Your task to perform on an android device: snooze an email in the gmail app Image 0: 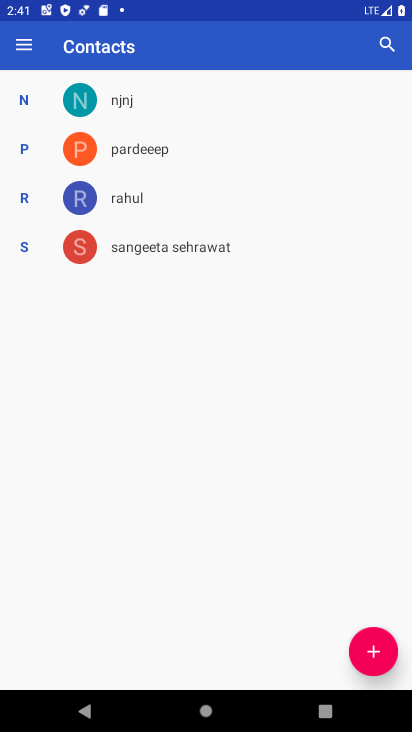
Step 0: press home button
Your task to perform on an android device: snooze an email in the gmail app Image 1: 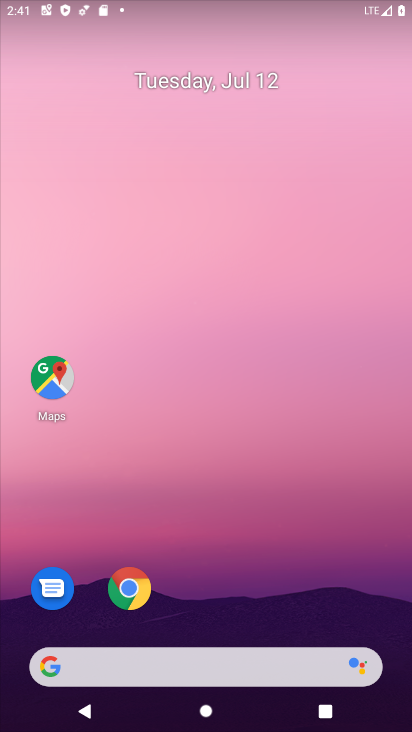
Step 1: drag from (137, 606) to (249, 206)
Your task to perform on an android device: snooze an email in the gmail app Image 2: 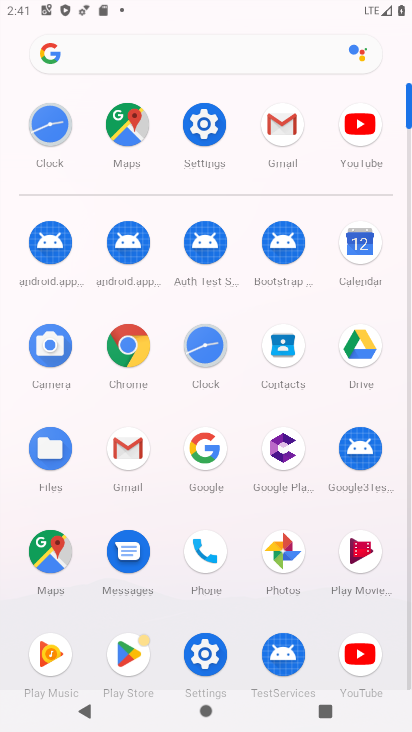
Step 2: click (293, 124)
Your task to perform on an android device: snooze an email in the gmail app Image 3: 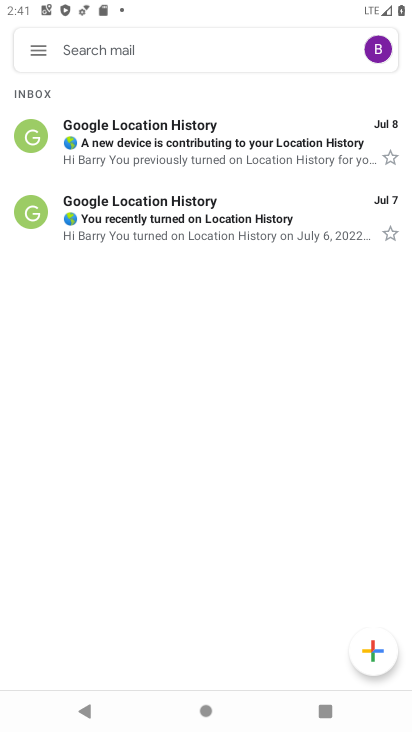
Step 3: click (180, 132)
Your task to perform on an android device: snooze an email in the gmail app Image 4: 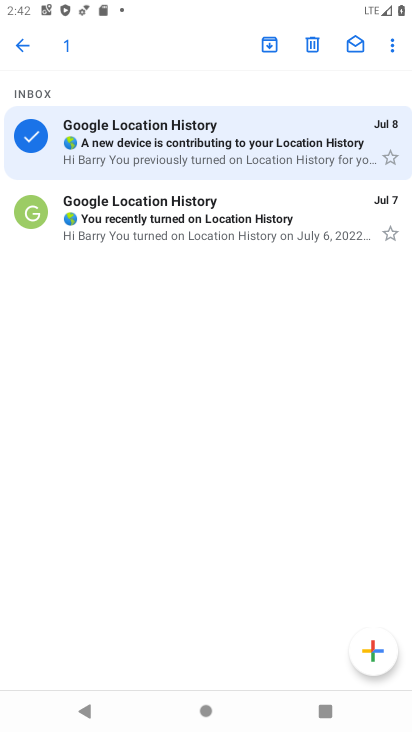
Step 4: click (391, 41)
Your task to perform on an android device: snooze an email in the gmail app Image 5: 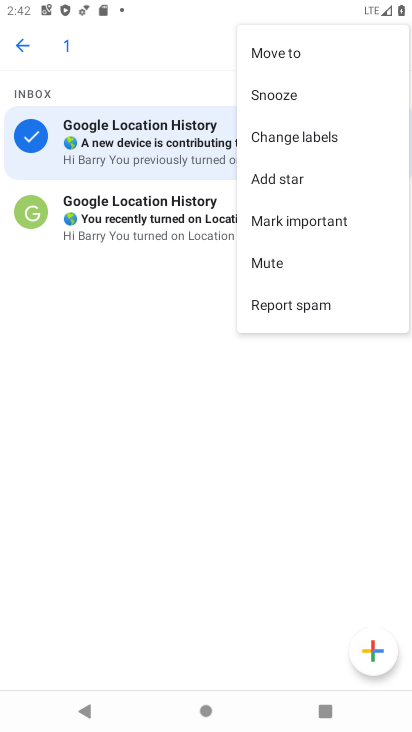
Step 5: click (307, 101)
Your task to perform on an android device: snooze an email in the gmail app Image 6: 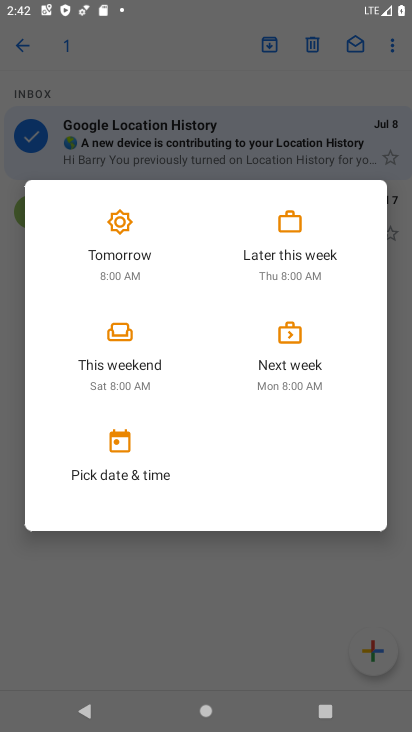
Step 6: click (131, 248)
Your task to perform on an android device: snooze an email in the gmail app Image 7: 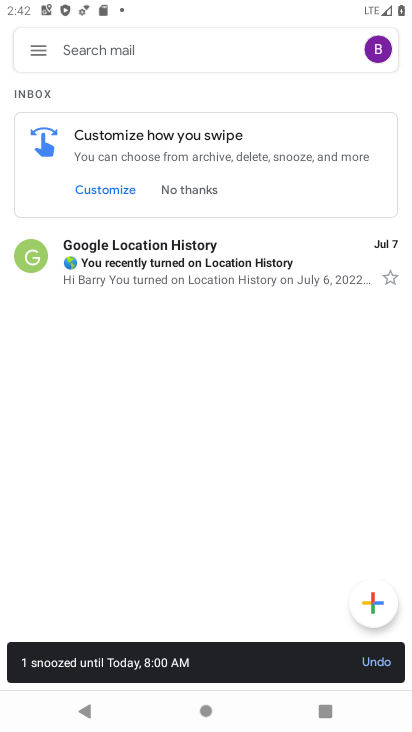
Step 7: task complete